Your task to perform on an android device: What's on my calendar tomorrow? Image 0: 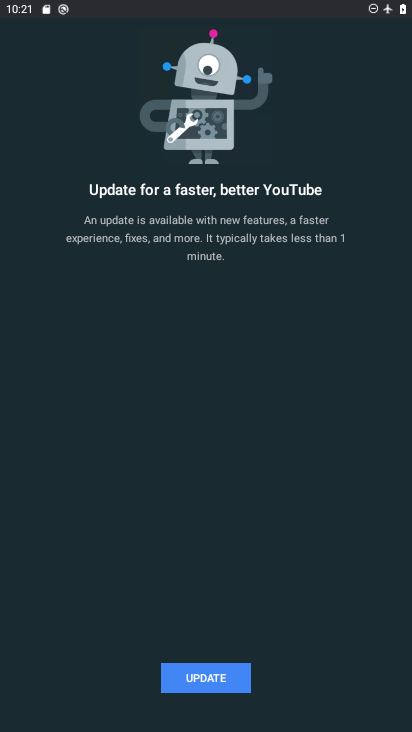
Step 0: press home button
Your task to perform on an android device: What's on my calendar tomorrow? Image 1: 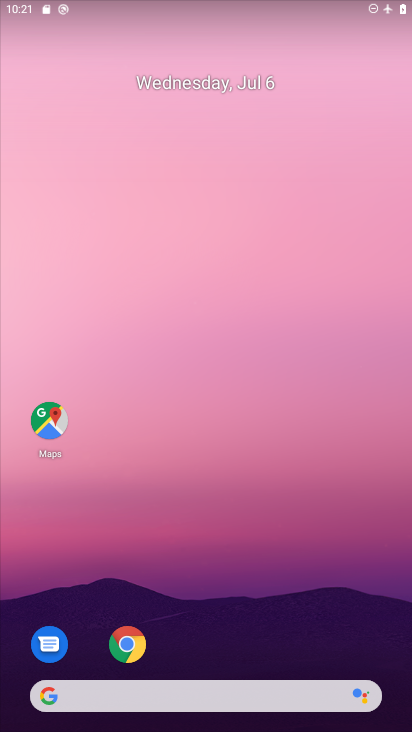
Step 1: drag from (217, 640) to (225, 87)
Your task to perform on an android device: What's on my calendar tomorrow? Image 2: 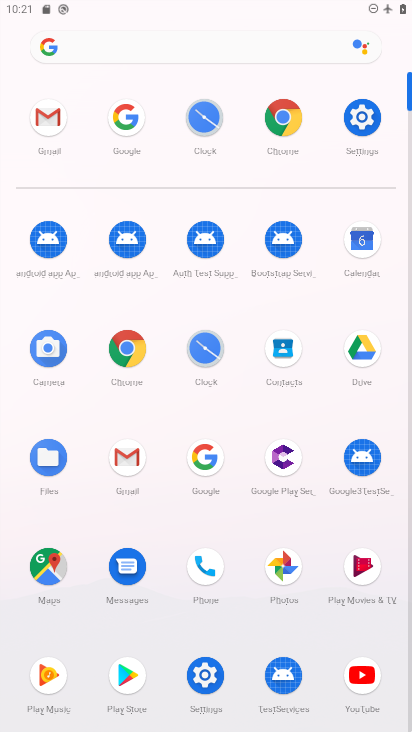
Step 2: click (358, 257)
Your task to perform on an android device: What's on my calendar tomorrow? Image 3: 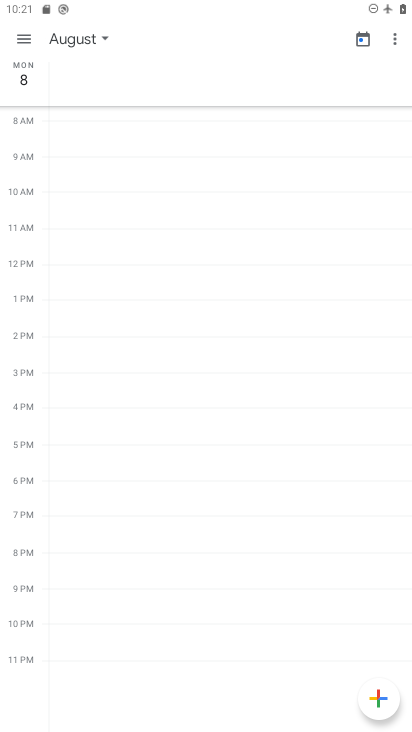
Step 3: click (95, 40)
Your task to perform on an android device: What's on my calendar tomorrow? Image 4: 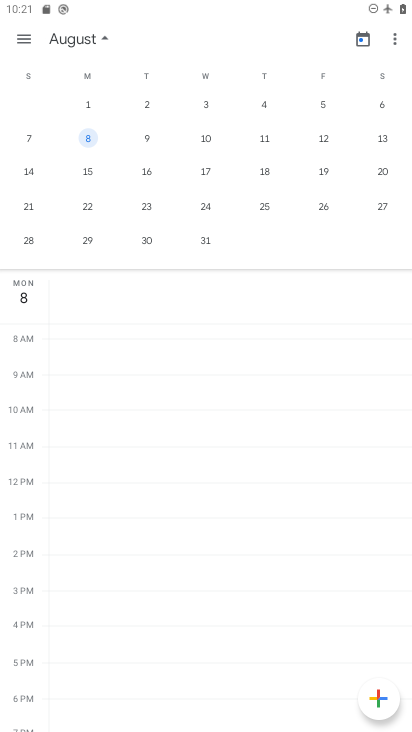
Step 4: drag from (108, 132) to (389, 150)
Your task to perform on an android device: What's on my calendar tomorrow? Image 5: 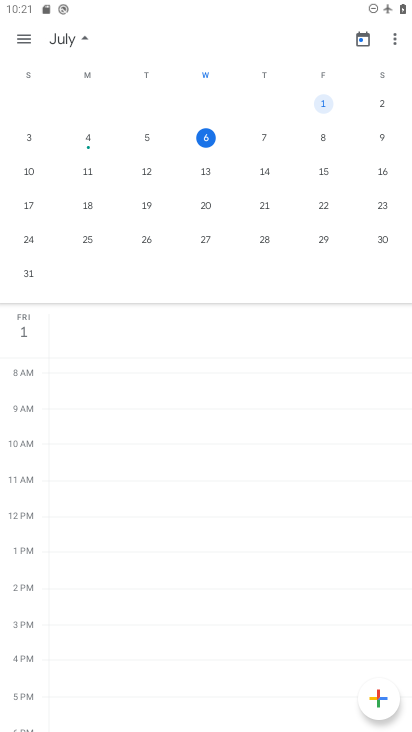
Step 5: click (265, 134)
Your task to perform on an android device: What's on my calendar tomorrow? Image 6: 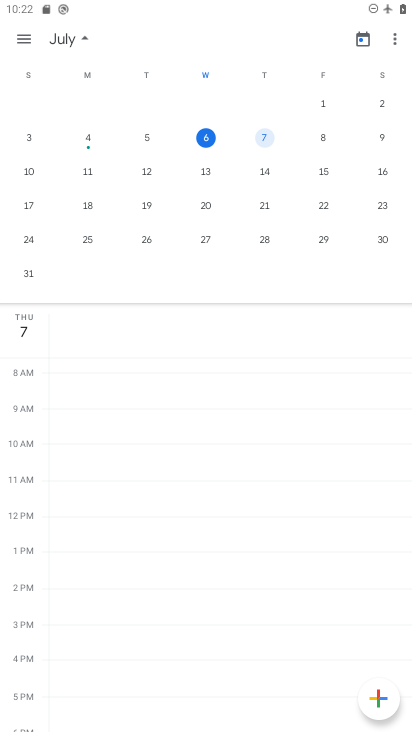
Step 6: task complete